Your task to perform on an android device: Go to Yahoo.com Image 0: 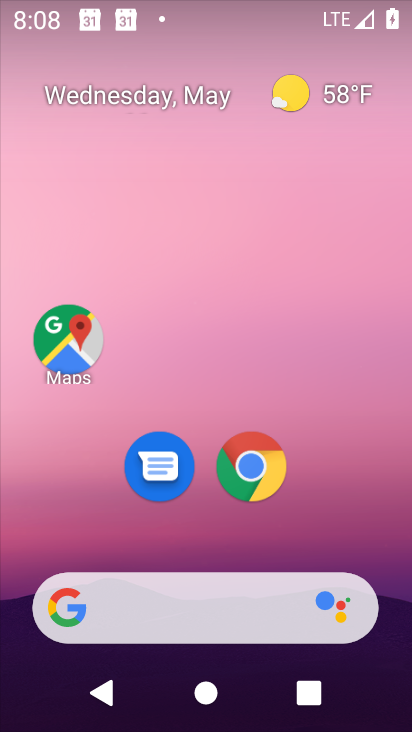
Step 0: press home button
Your task to perform on an android device: Go to Yahoo.com Image 1: 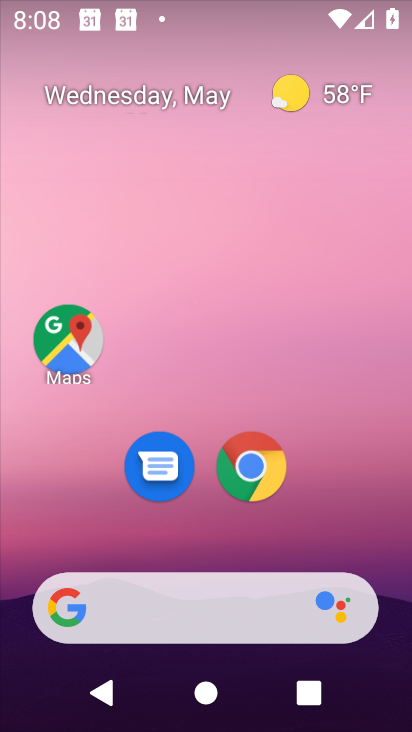
Step 1: click (264, 464)
Your task to perform on an android device: Go to Yahoo.com Image 2: 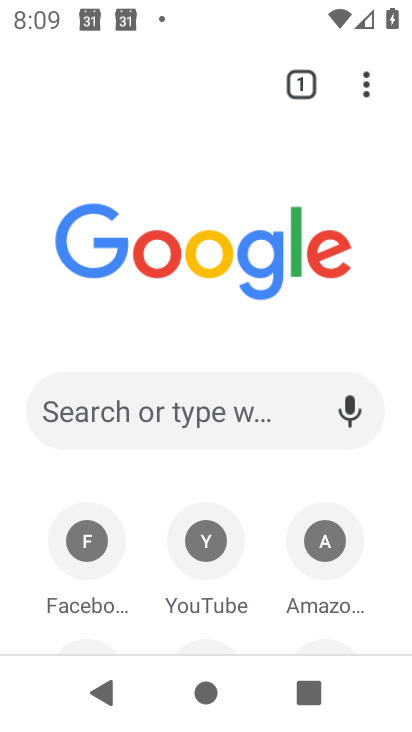
Step 2: drag from (247, 600) to (280, 234)
Your task to perform on an android device: Go to Yahoo.com Image 3: 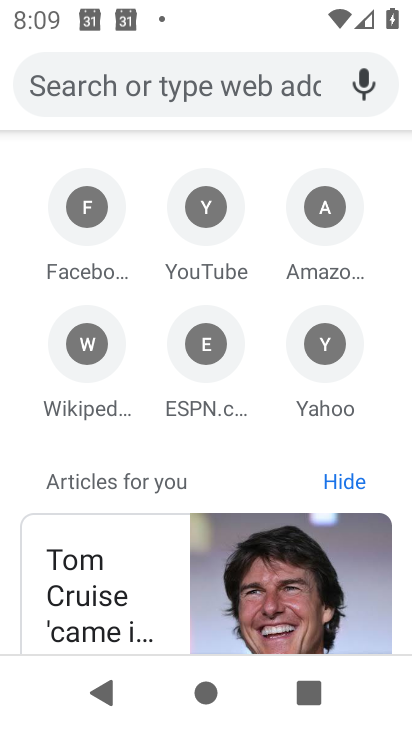
Step 3: click (334, 334)
Your task to perform on an android device: Go to Yahoo.com Image 4: 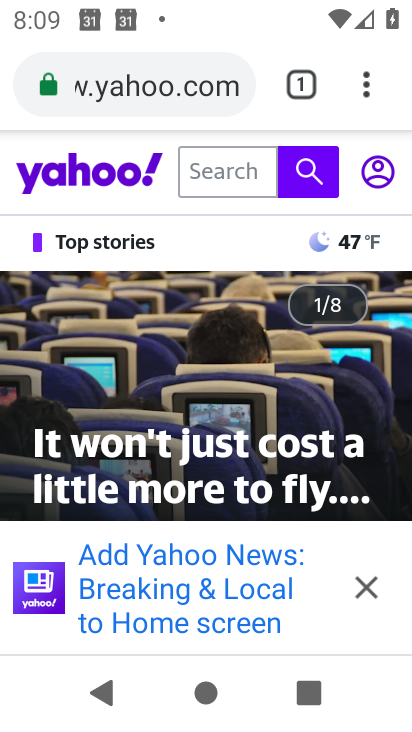
Step 4: task complete